Your task to perform on an android device: turn vacation reply on in the gmail app Image 0: 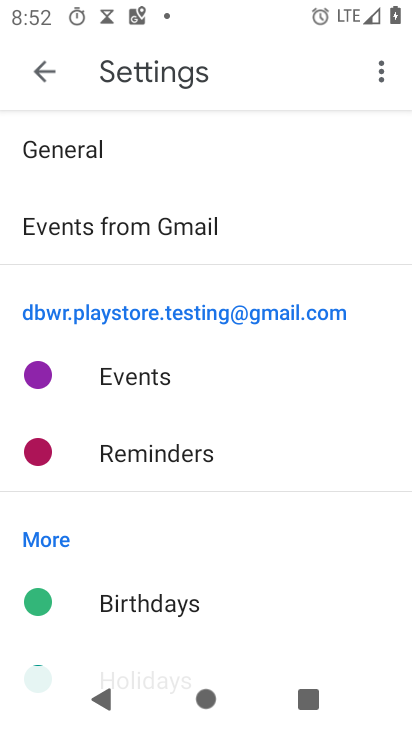
Step 0: press home button
Your task to perform on an android device: turn vacation reply on in the gmail app Image 1: 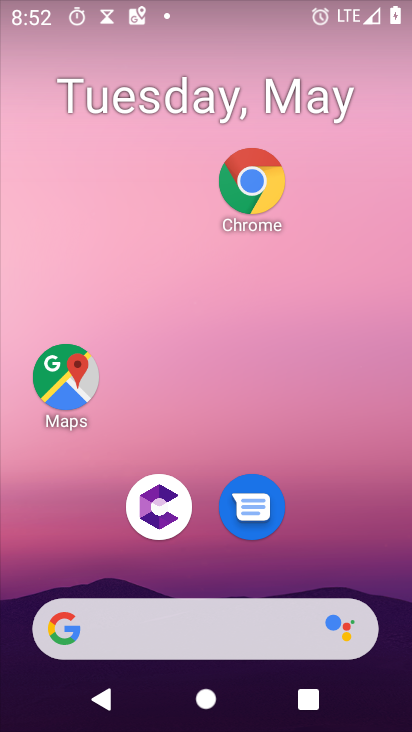
Step 1: drag from (328, 578) to (340, 50)
Your task to perform on an android device: turn vacation reply on in the gmail app Image 2: 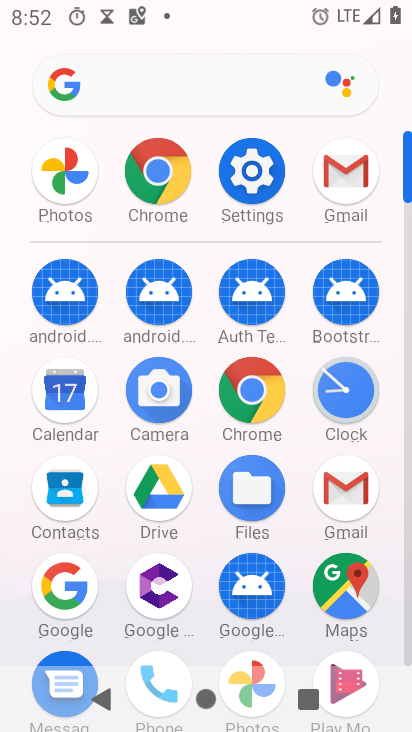
Step 2: click (356, 491)
Your task to perform on an android device: turn vacation reply on in the gmail app Image 3: 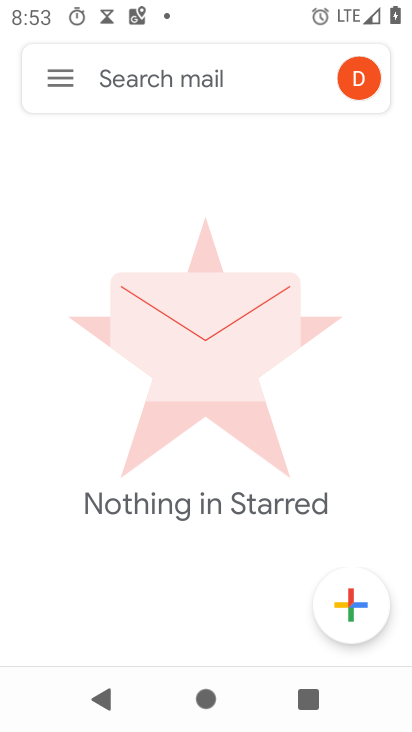
Step 3: click (75, 75)
Your task to perform on an android device: turn vacation reply on in the gmail app Image 4: 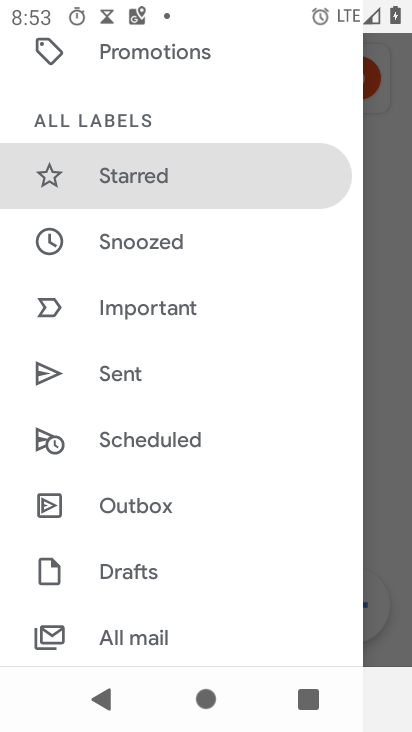
Step 4: drag from (202, 583) to (174, 266)
Your task to perform on an android device: turn vacation reply on in the gmail app Image 5: 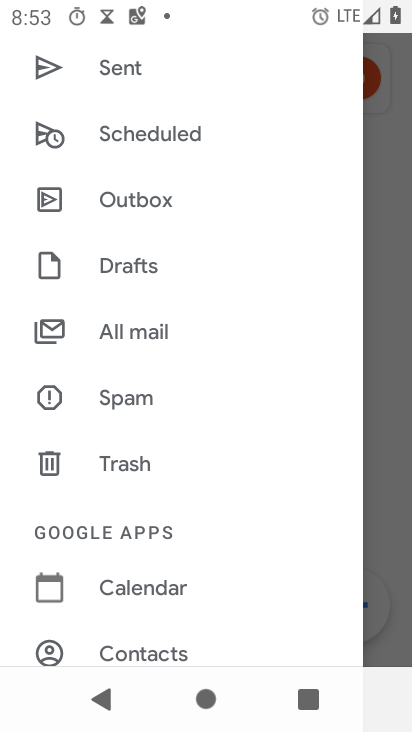
Step 5: drag from (174, 572) to (225, 312)
Your task to perform on an android device: turn vacation reply on in the gmail app Image 6: 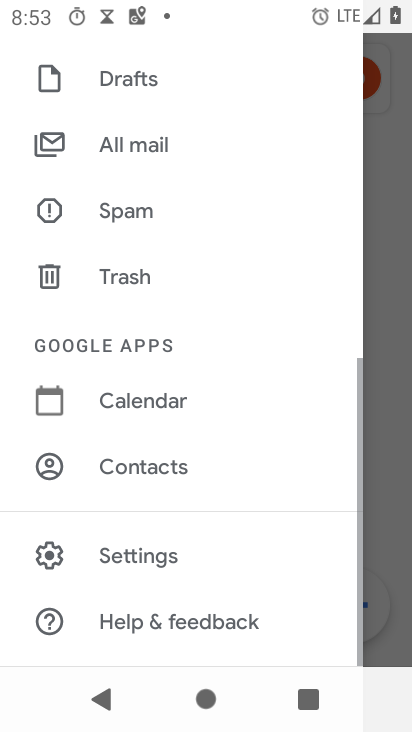
Step 6: click (160, 554)
Your task to perform on an android device: turn vacation reply on in the gmail app Image 7: 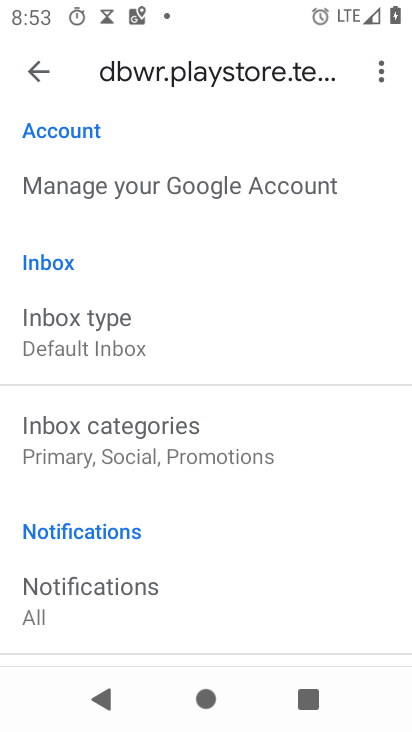
Step 7: drag from (105, 615) to (147, 343)
Your task to perform on an android device: turn vacation reply on in the gmail app Image 8: 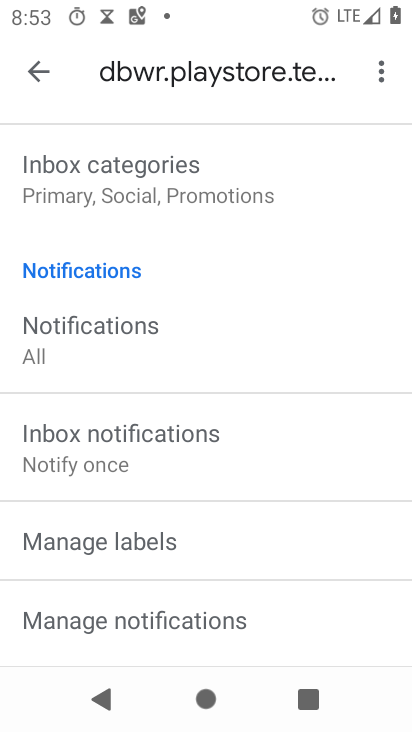
Step 8: drag from (181, 529) to (242, 329)
Your task to perform on an android device: turn vacation reply on in the gmail app Image 9: 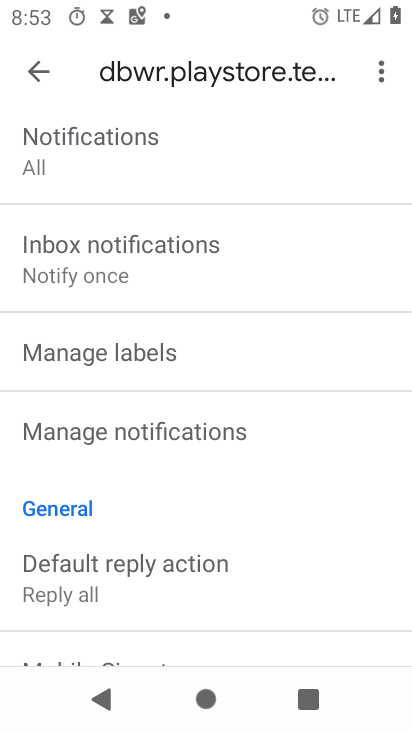
Step 9: drag from (215, 576) to (270, 407)
Your task to perform on an android device: turn vacation reply on in the gmail app Image 10: 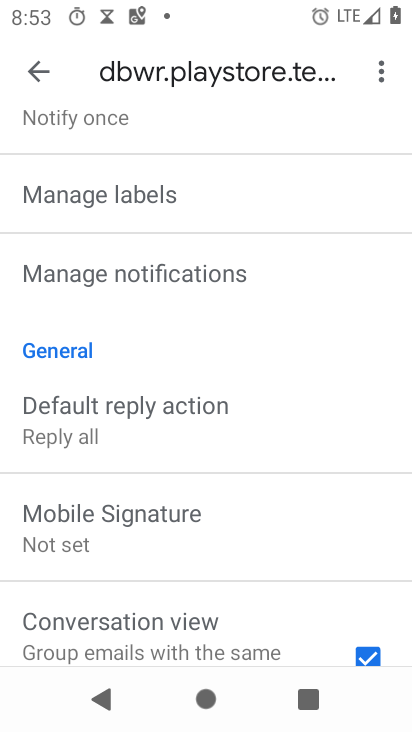
Step 10: drag from (262, 566) to (276, 288)
Your task to perform on an android device: turn vacation reply on in the gmail app Image 11: 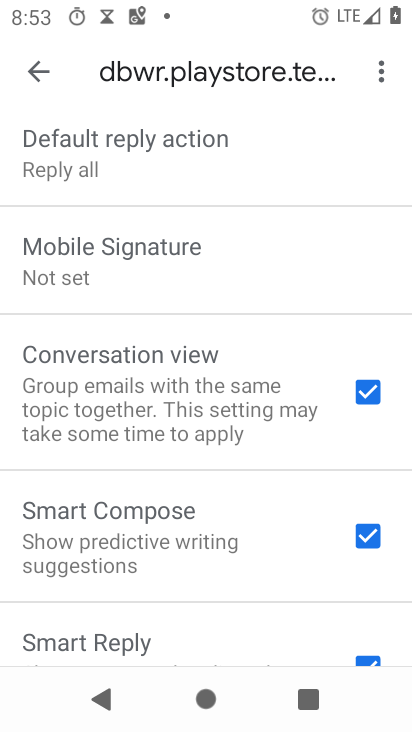
Step 11: drag from (262, 523) to (301, 311)
Your task to perform on an android device: turn vacation reply on in the gmail app Image 12: 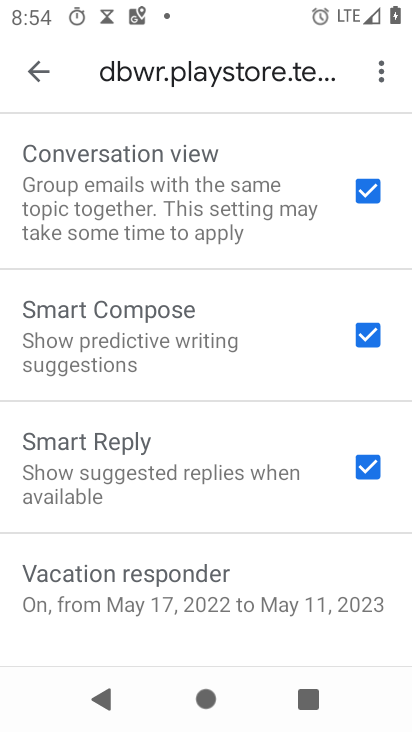
Step 12: click (228, 600)
Your task to perform on an android device: turn vacation reply on in the gmail app Image 13: 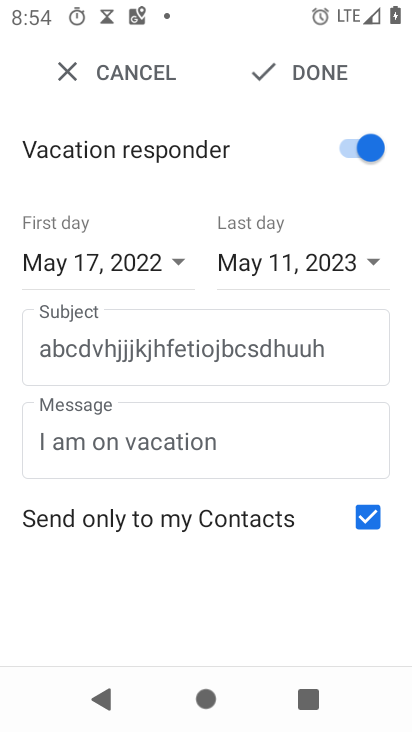
Step 13: click (301, 71)
Your task to perform on an android device: turn vacation reply on in the gmail app Image 14: 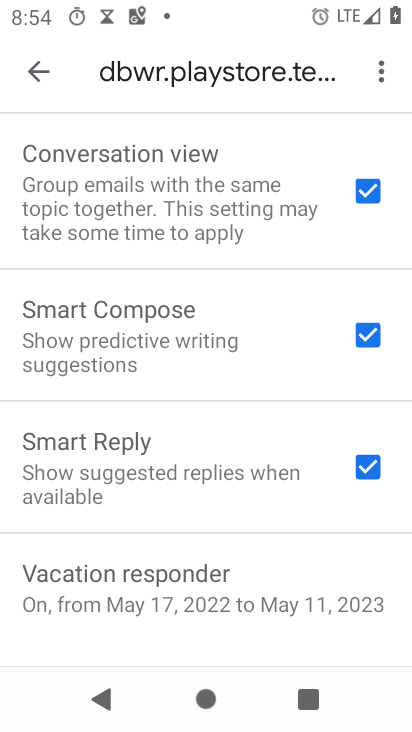
Step 14: task complete